Your task to perform on an android device: Open Youtube and go to "Your channel" Image 0: 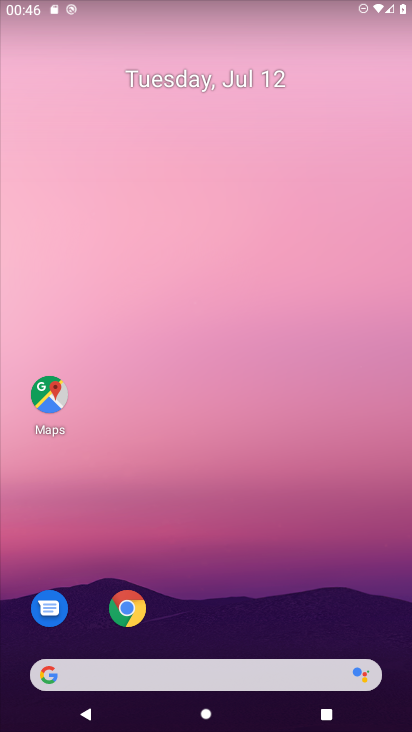
Step 0: drag from (195, 647) to (142, 51)
Your task to perform on an android device: Open Youtube and go to "Your channel" Image 1: 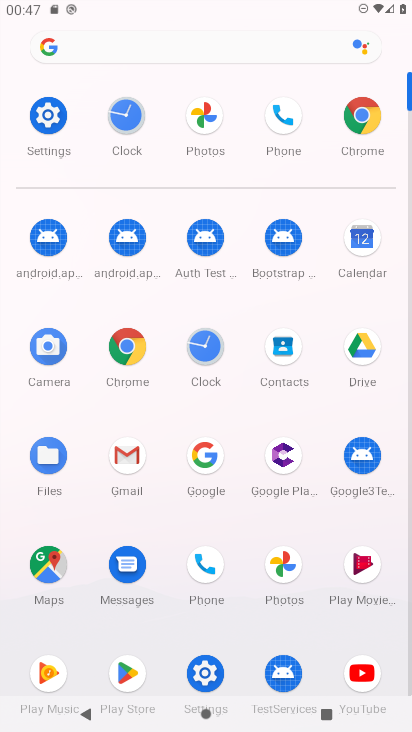
Step 1: click (368, 670)
Your task to perform on an android device: Open Youtube and go to "Your channel" Image 2: 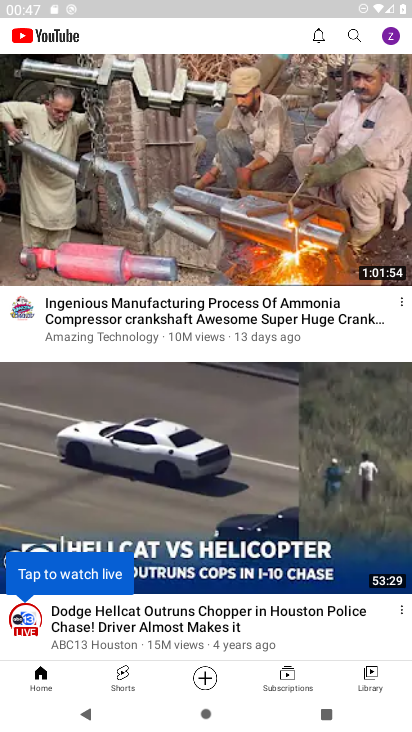
Step 2: click (382, 36)
Your task to perform on an android device: Open Youtube and go to "Your channel" Image 3: 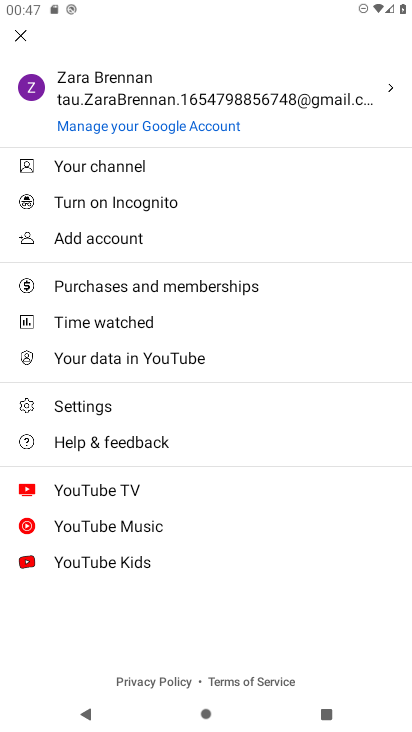
Step 3: click (66, 166)
Your task to perform on an android device: Open Youtube and go to "Your channel" Image 4: 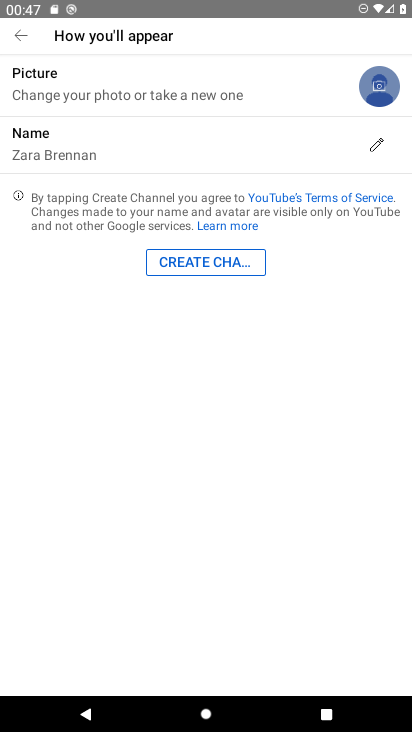
Step 4: task complete